Your task to perform on an android device: open sync settings in chrome Image 0: 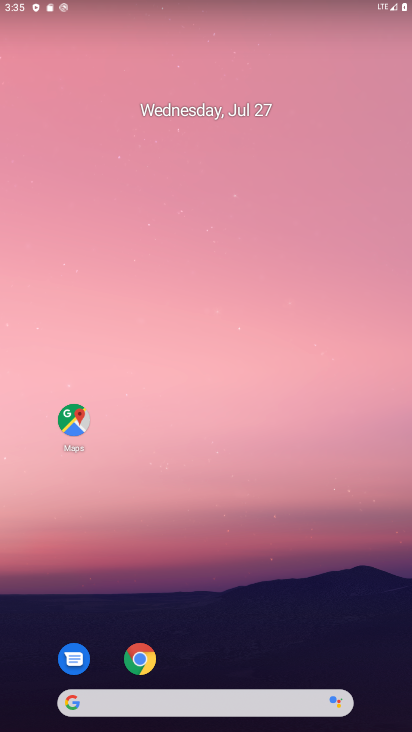
Step 0: click (140, 663)
Your task to perform on an android device: open sync settings in chrome Image 1: 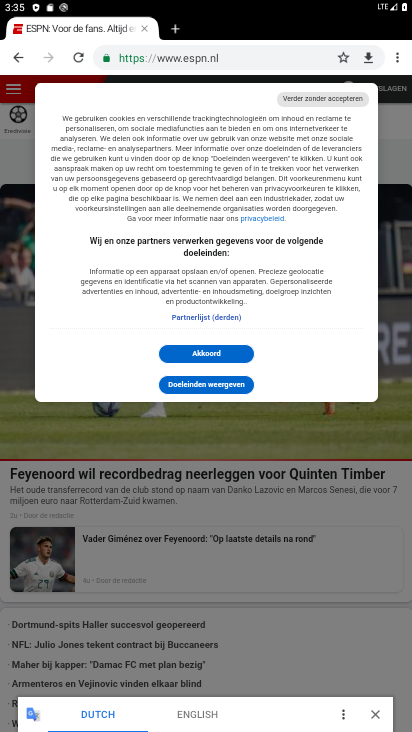
Step 1: drag from (399, 58) to (282, 384)
Your task to perform on an android device: open sync settings in chrome Image 2: 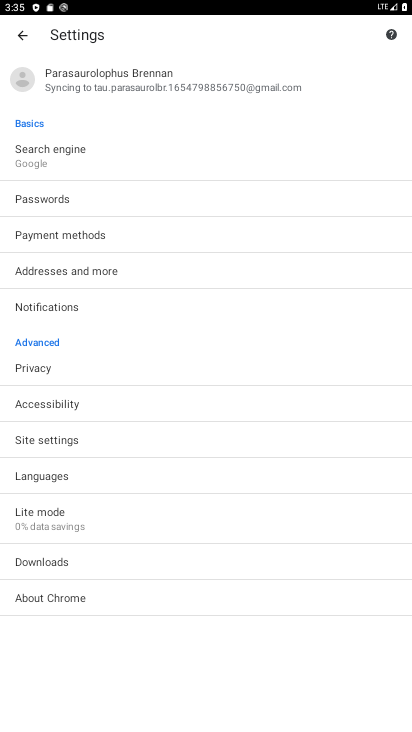
Step 2: click (109, 82)
Your task to perform on an android device: open sync settings in chrome Image 3: 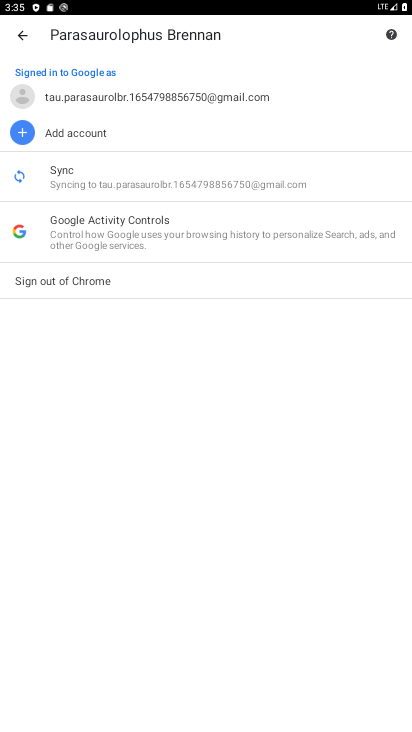
Step 3: click (78, 182)
Your task to perform on an android device: open sync settings in chrome Image 4: 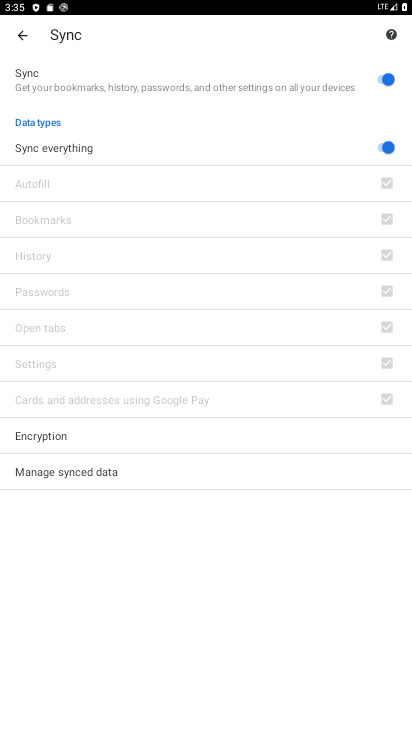
Step 4: task complete